Your task to perform on an android device: When is my next meeting? Image 0: 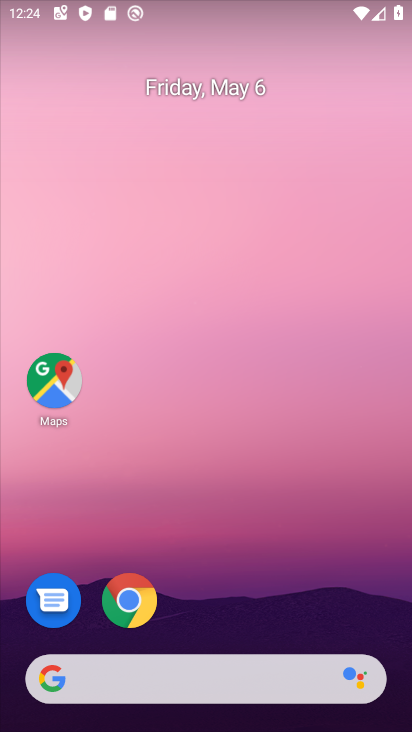
Step 0: drag from (344, 624) to (266, 197)
Your task to perform on an android device: When is my next meeting? Image 1: 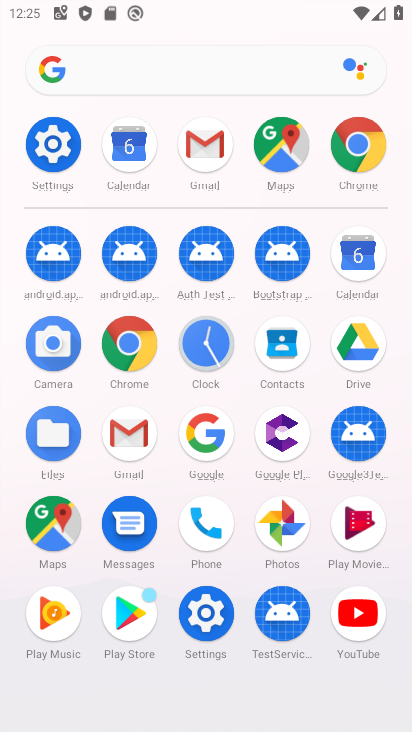
Step 1: click (351, 270)
Your task to perform on an android device: When is my next meeting? Image 2: 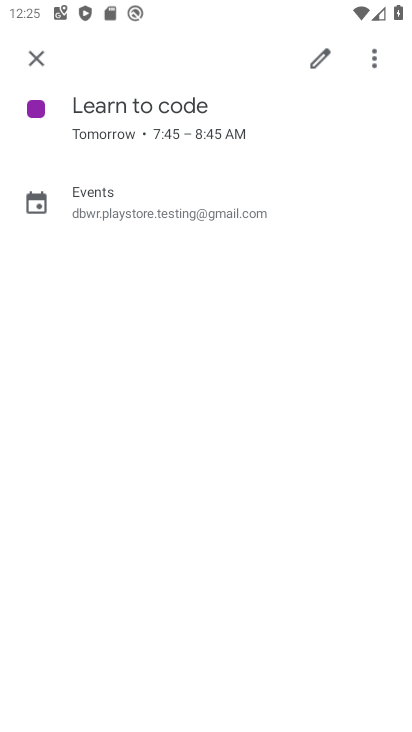
Step 2: click (31, 55)
Your task to perform on an android device: When is my next meeting? Image 3: 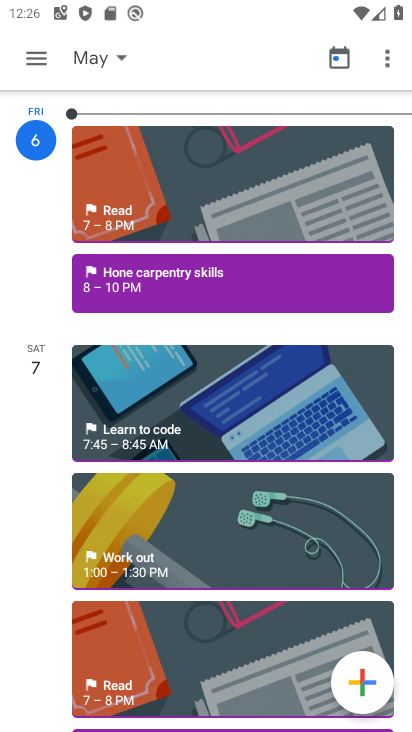
Step 3: task complete